Your task to perform on an android device: open a new tab in the chrome app Image 0: 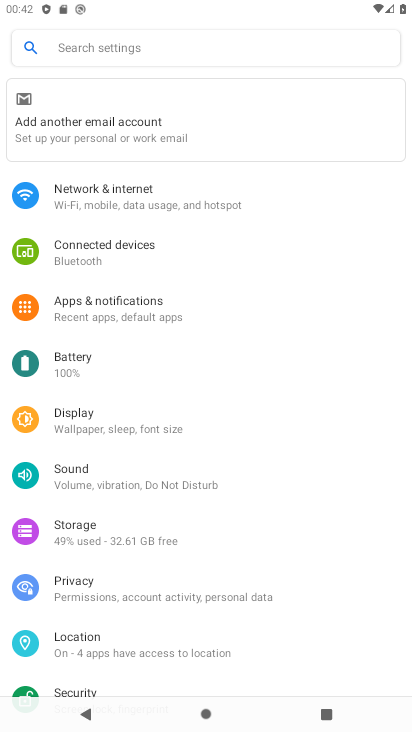
Step 0: press home button
Your task to perform on an android device: open a new tab in the chrome app Image 1: 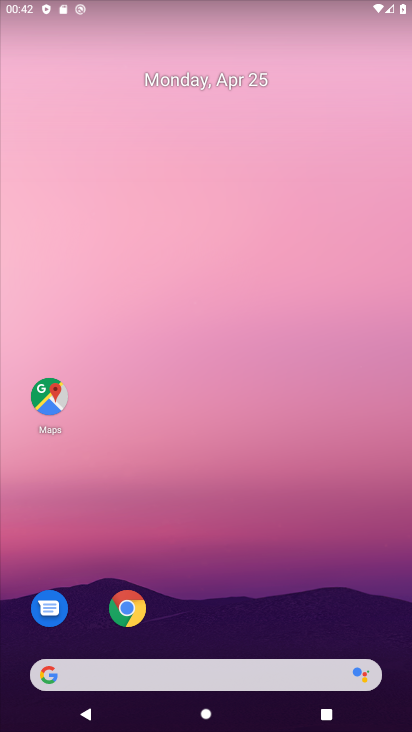
Step 1: drag from (218, 608) to (168, 207)
Your task to perform on an android device: open a new tab in the chrome app Image 2: 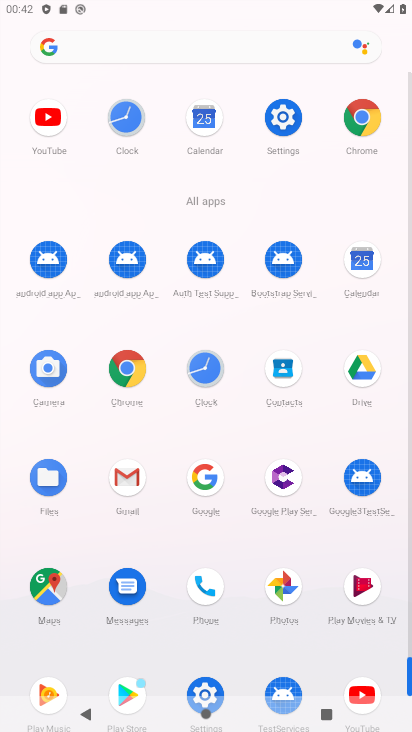
Step 2: click (366, 129)
Your task to perform on an android device: open a new tab in the chrome app Image 3: 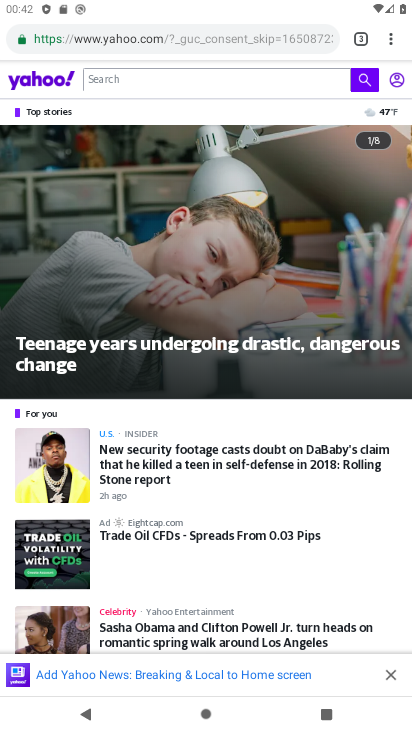
Step 3: click (359, 38)
Your task to perform on an android device: open a new tab in the chrome app Image 4: 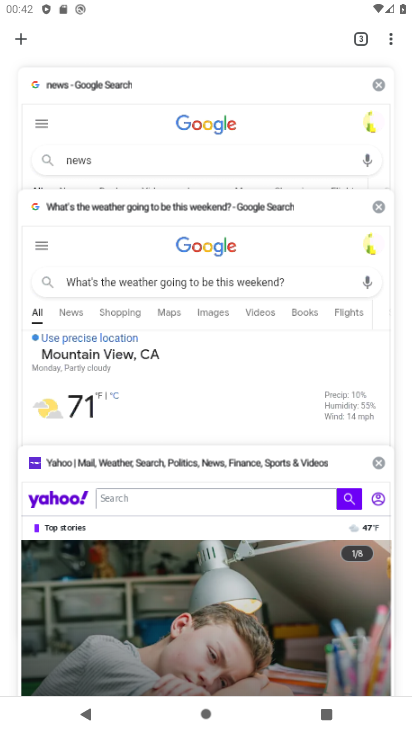
Step 4: click (23, 39)
Your task to perform on an android device: open a new tab in the chrome app Image 5: 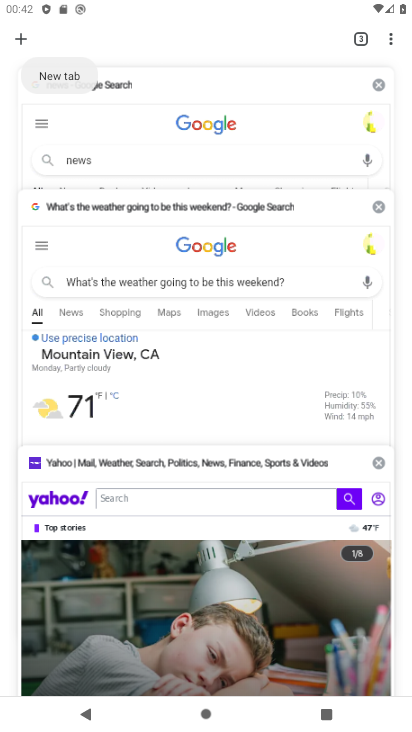
Step 5: click (23, 39)
Your task to perform on an android device: open a new tab in the chrome app Image 6: 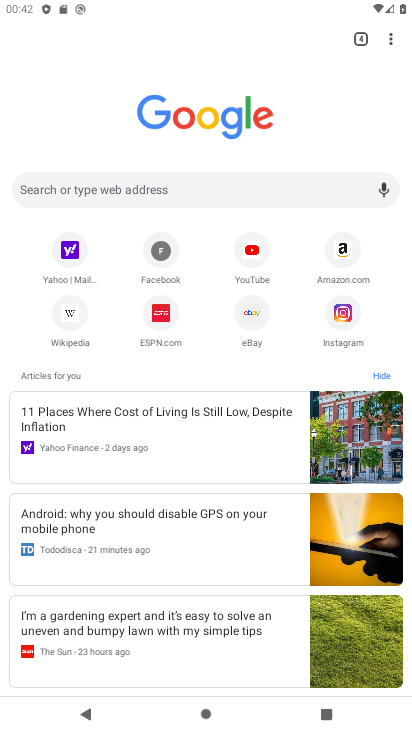
Step 6: task complete